Your task to perform on an android device: toggle priority inbox in the gmail app Image 0: 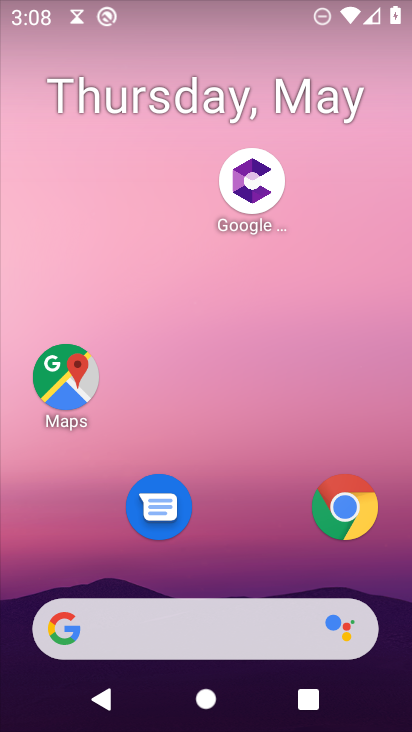
Step 0: drag from (254, 524) to (234, 209)
Your task to perform on an android device: toggle priority inbox in the gmail app Image 1: 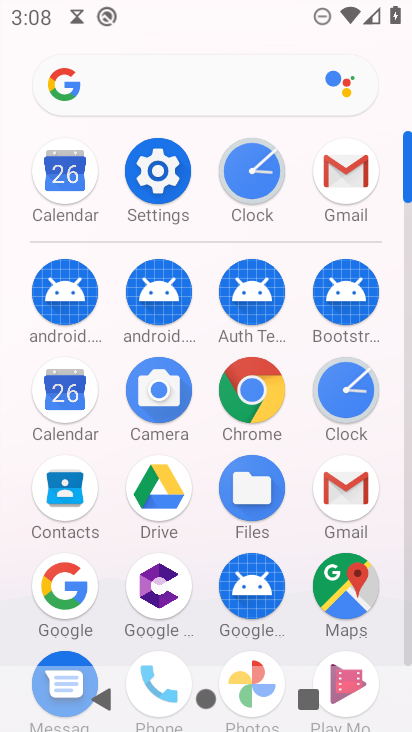
Step 1: click (328, 188)
Your task to perform on an android device: toggle priority inbox in the gmail app Image 2: 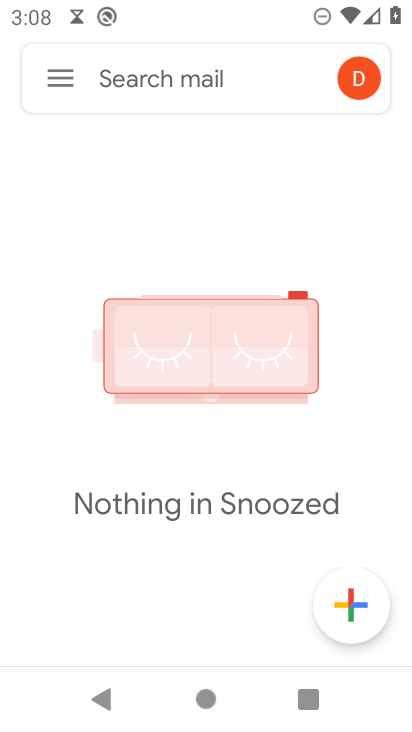
Step 2: click (50, 72)
Your task to perform on an android device: toggle priority inbox in the gmail app Image 3: 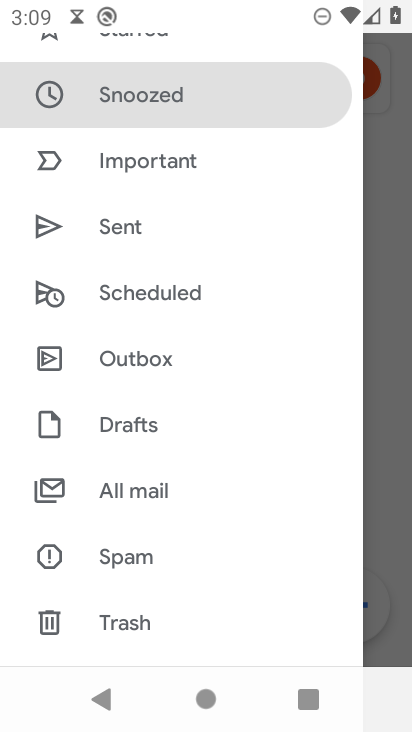
Step 3: drag from (215, 594) to (198, 118)
Your task to perform on an android device: toggle priority inbox in the gmail app Image 4: 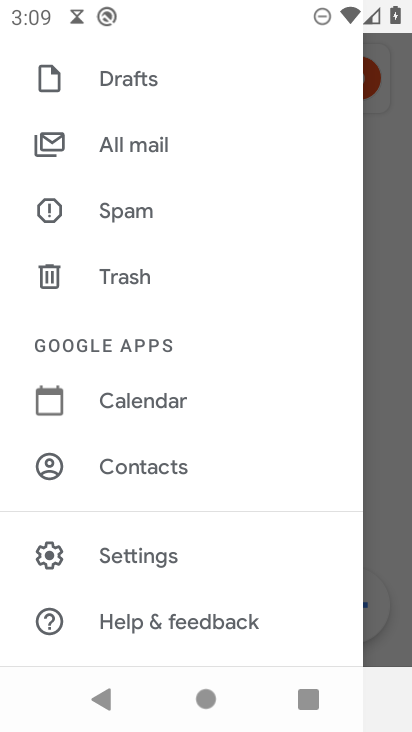
Step 4: click (171, 555)
Your task to perform on an android device: toggle priority inbox in the gmail app Image 5: 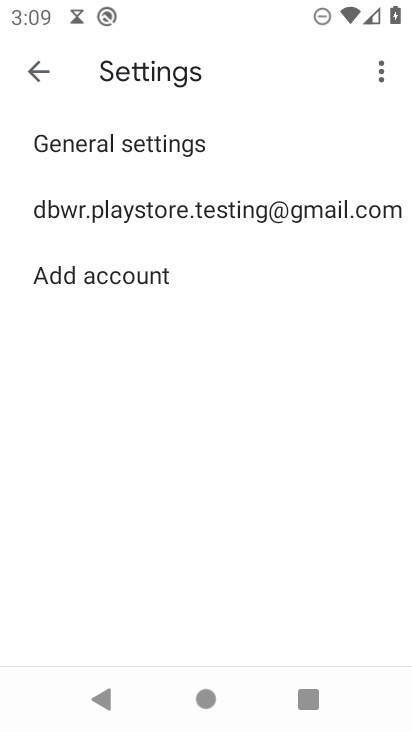
Step 5: click (125, 197)
Your task to perform on an android device: toggle priority inbox in the gmail app Image 6: 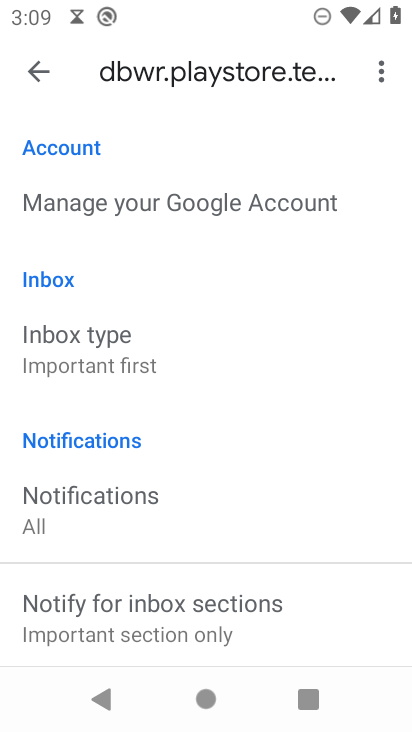
Step 6: click (58, 347)
Your task to perform on an android device: toggle priority inbox in the gmail app Image 7: 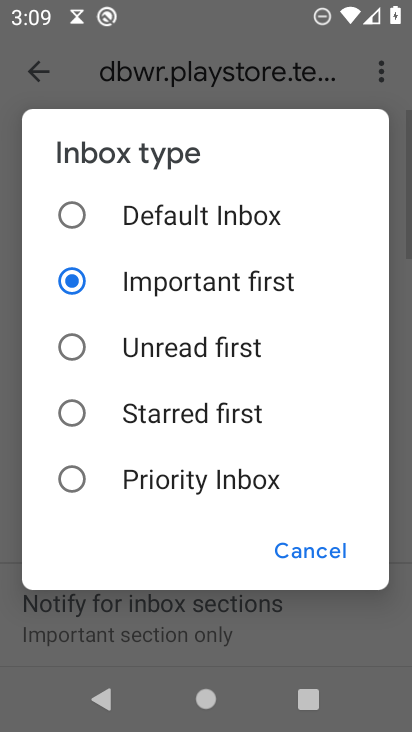
Step 7: click (234, 476)
Your task to perform on an android device: toggle priority inbox in the gmail app Image 8: 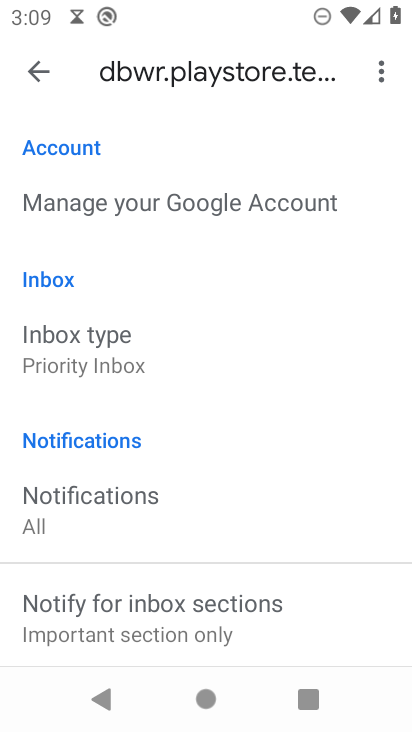
Step 8: task complete